Your task to perform on an android device: Go to ESPN.com Image 0: 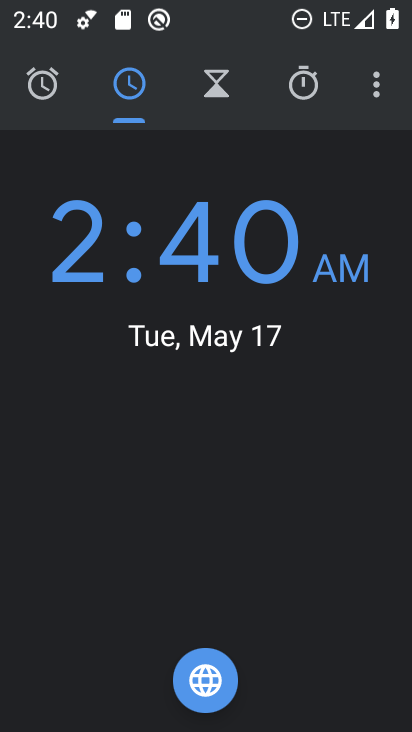
Step 0: press home button
Your task to perform on an android device: Go to ESPN.com Image 1: 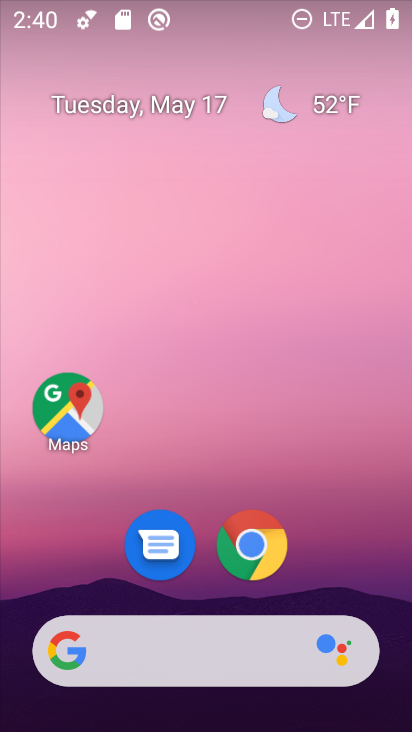
Step 1: drag from (362, 563) to (356, 62)
Your task to perform on an android device: Go to ESPN.com Image 2: 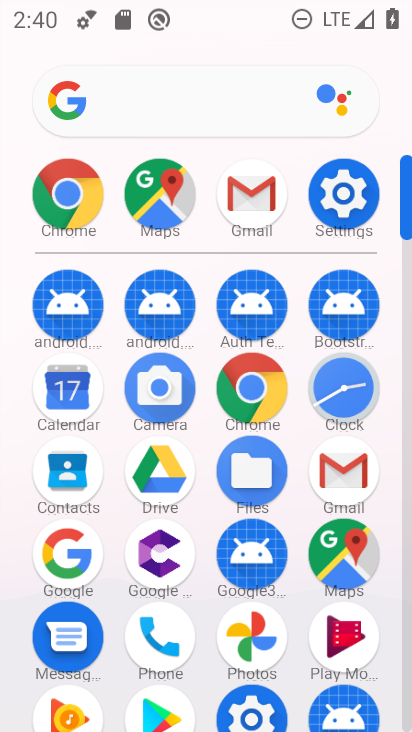
Step 2: click (274, 409)
Your task to perform on an android device: Go to ESPN.com Image 3: 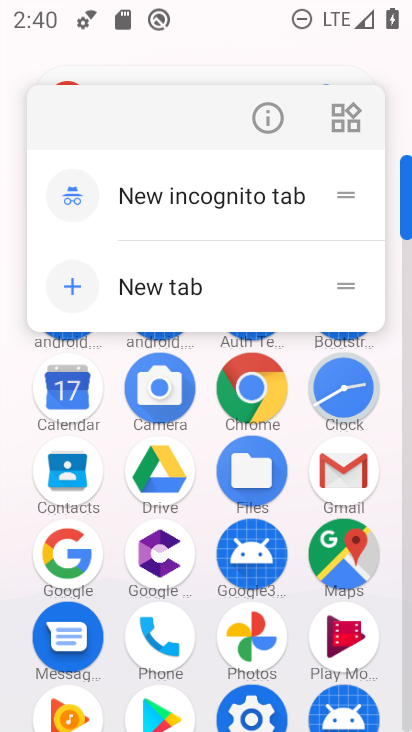
Step 3: click (274, 409)
Your task to perform on an android device: Go to ESPN.com Image 4: 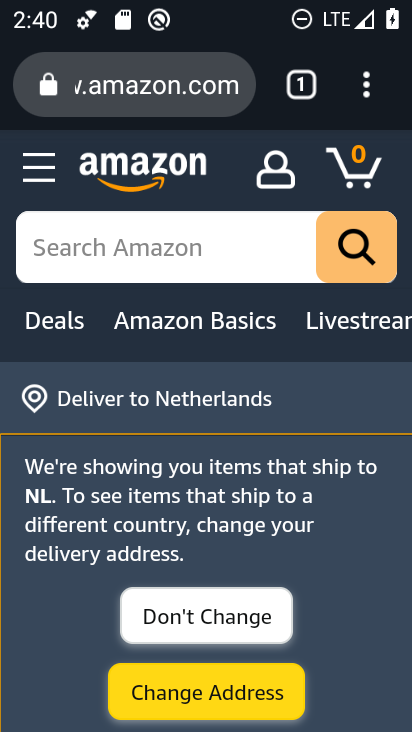
Step 4: click (208, 91)
Your task to perform on an android device: Go to ESPN.com Image 5: 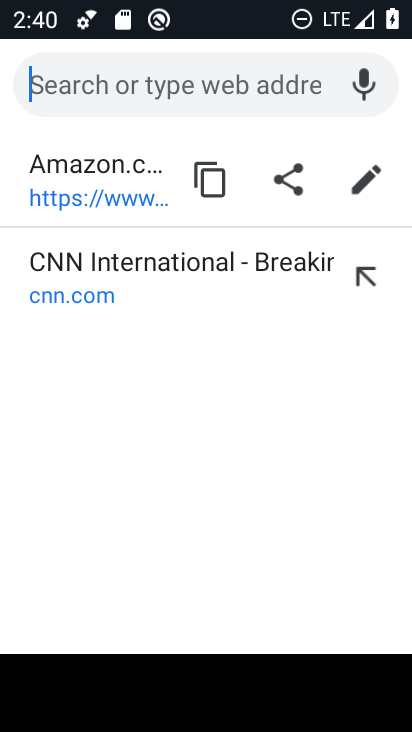
Step 5: type "espn"
Your task to perform on an android device: Go to ESPN.com Image 6: 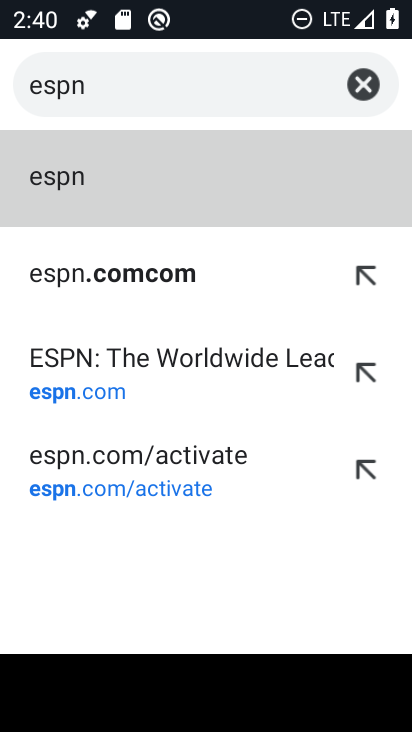
Step 6: click (68, 187)
Your task to perform on an android device: Go to ESPN.com Image 7: 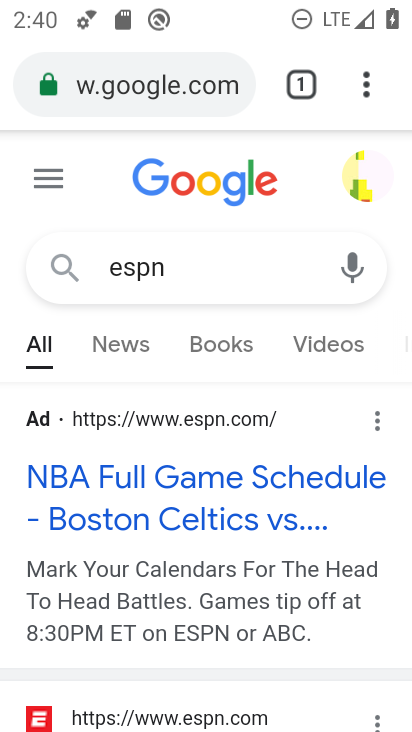
Step 7: task complete